Your task to perform on an android device: manage bookmarks in the chrome app Image 0: 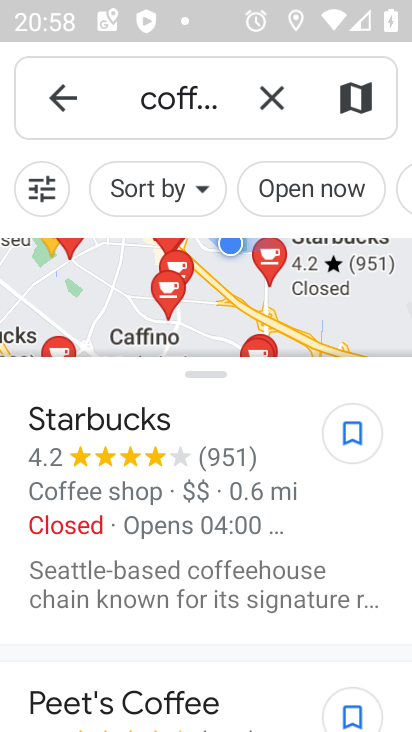
Step 0: press home button
Your task to perform on an android device: manage bookmarks in the chrome app Image 1: 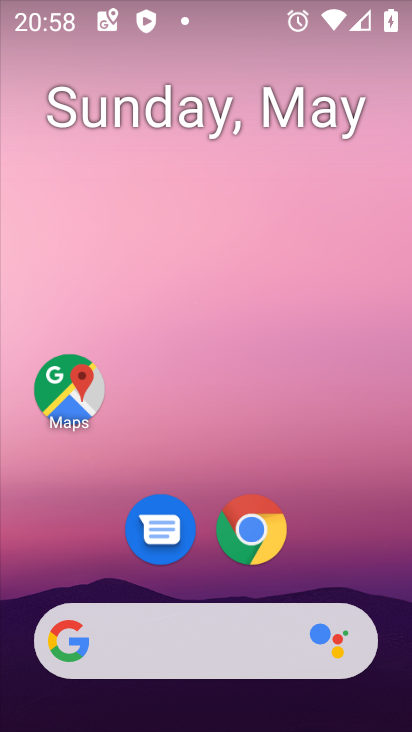
Step 1: click (251, 555)
Your task to perform on an android device: manage bookmarks in the chrome app Image 2: 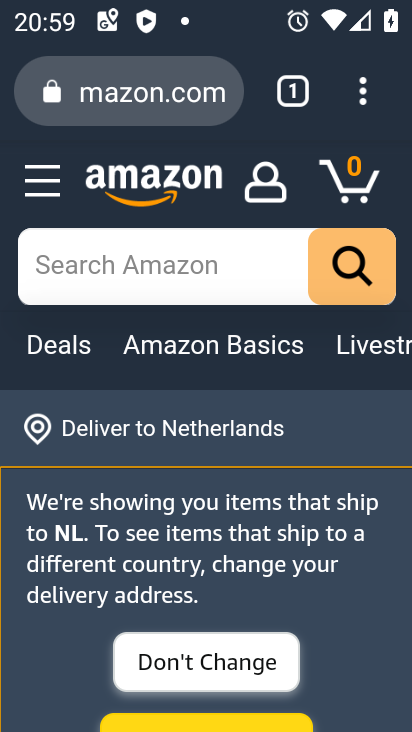
Step 2: click (367, 94)
Your task to perform on an android device: manage bookmarks in the chrome app Image 3: 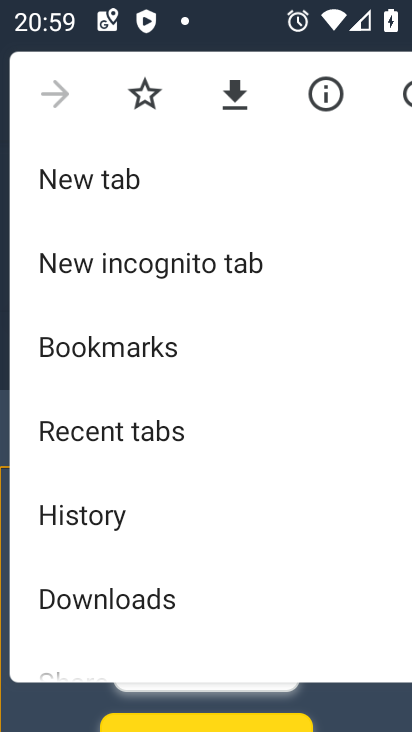
Step 3: click (94, 357)
Your task to perform on an android device: manage bookmarks in the chrome app Image 4: 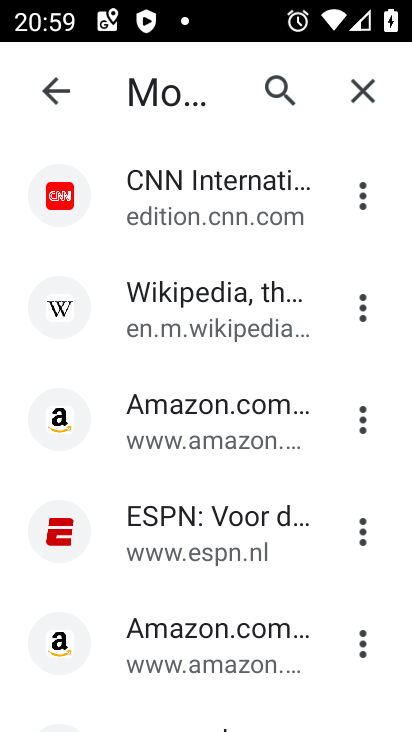
Step 4: drag from (194, 573) to (185, 246)
Your task to perform on an android device: manage bookmarks in the chrome app Image 5: 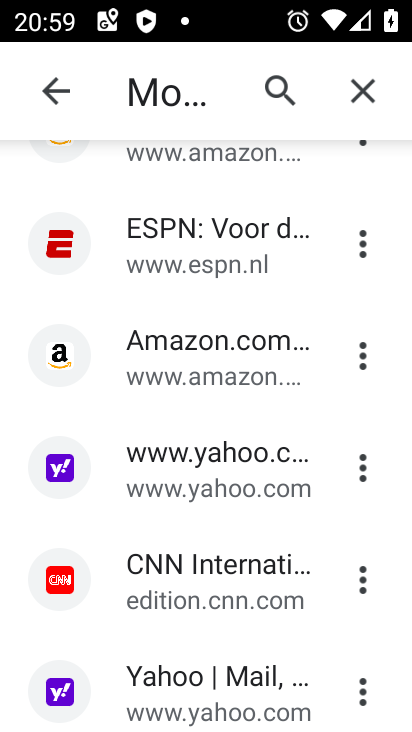
Step 5: click (367, 582)
Your task to perform on an android device: manage bookmarks in the chrome app Image 6: 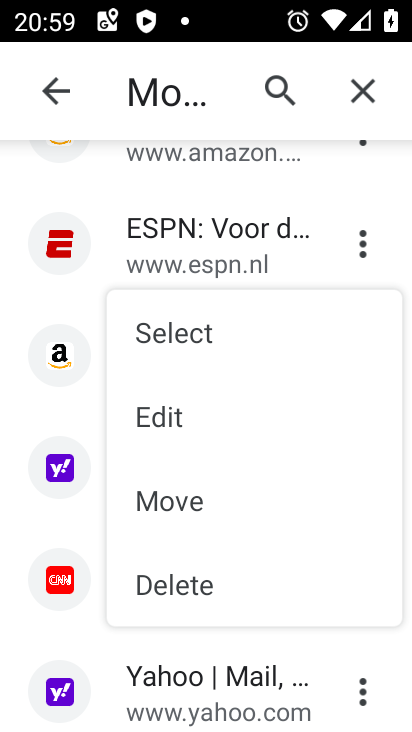
Step 6: click (162, 504)
Your task to perform on an android device: manage bookmarks in the chrome app Image 7: 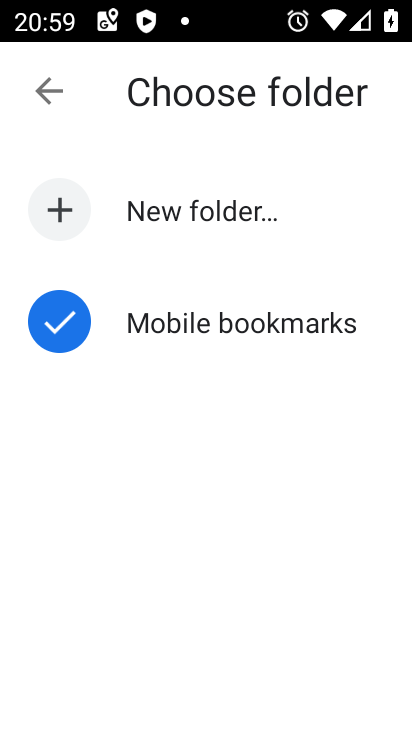
Step 7: click (185, 326)
Your task to perform on an android device: manage bookmarks in the chrome app Image 8: 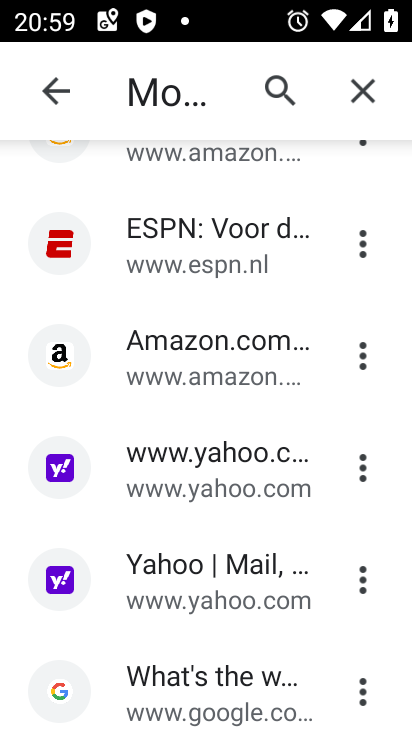
Step 8: task complete